Your task to perform on an android device: What's the weather going to be tomorrow? Image 0: 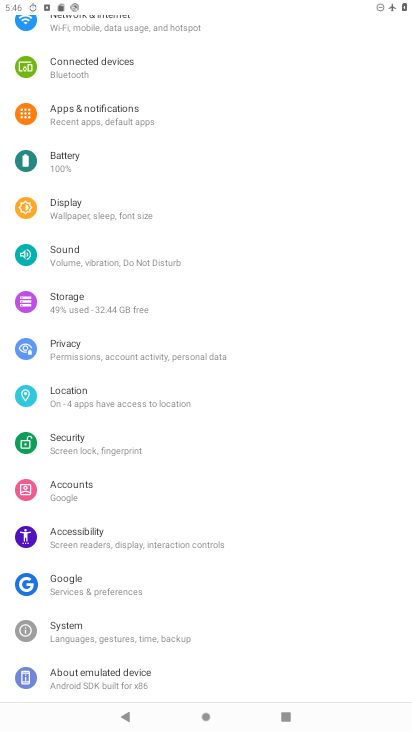
Step 0: press home button
Your task to perform on an android device: What's the weather going to be tomorrow? Image 1: 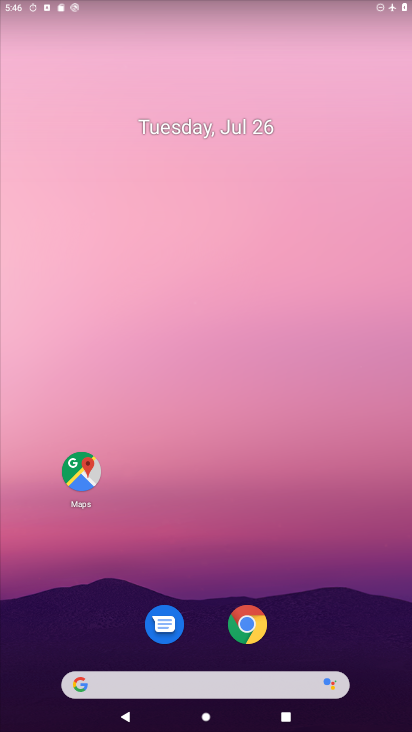
Step 1: drag from (205, 696) to (241, 141)
Your task to perform on an android device: What's the weather going to be tomorrow? Image 2: 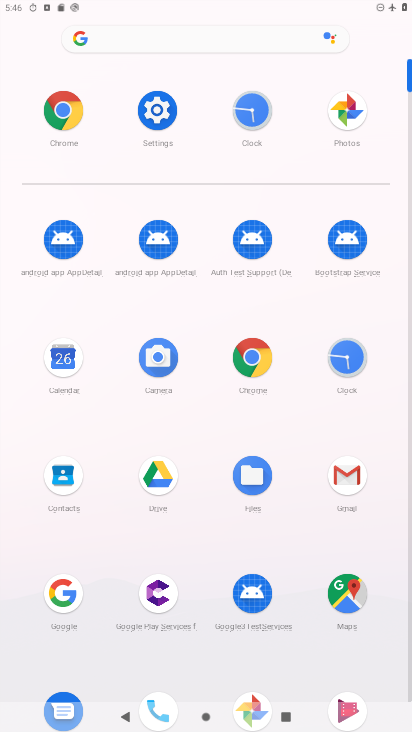
Step 2: click (258, 357)
Your task to perform on an android device: What's the weather going to be tomorrow? Image 3: 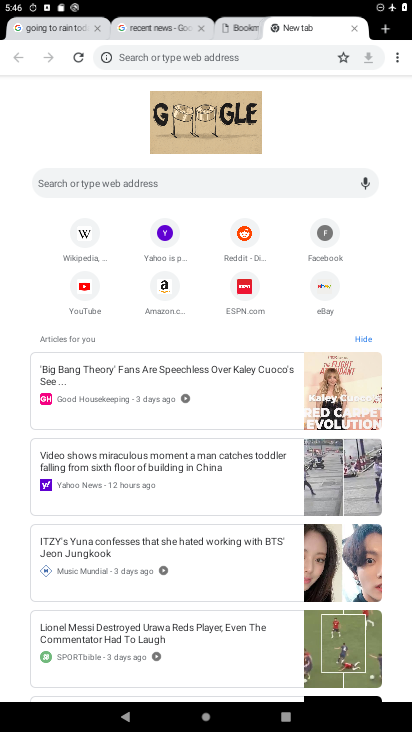
Step 3: click (127, 58)
Your task to perform on an android device: What's the weather going to be tomorrow? Image 4: 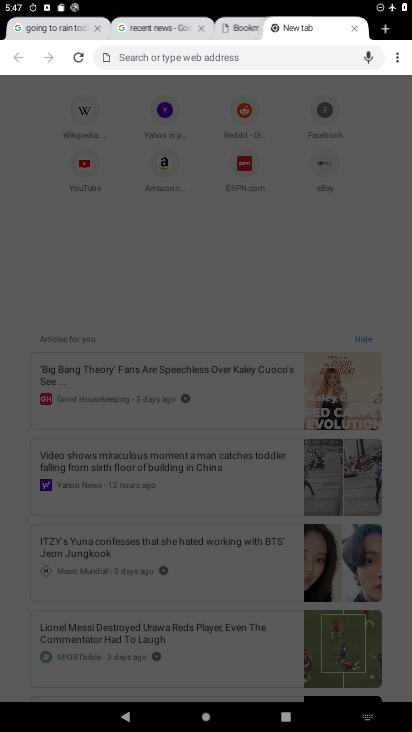
Step 4: type "weather going to be tomorrow"
Your task to perform on an android device: What's the weather going to be tomorrow? Image 5: 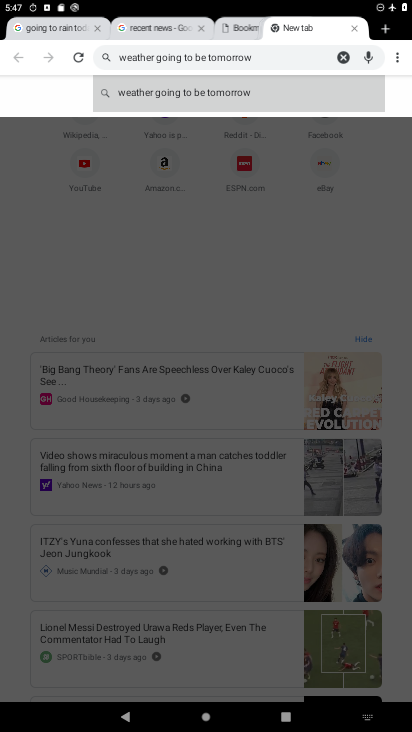
Step 5: click (287, 103)
Your task to perform on an android device: What's the weather going to be tomorrow? Image 6: 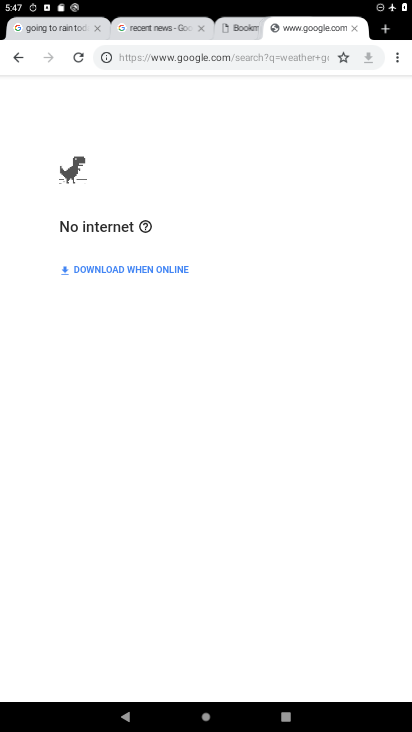
Step 6: task complete